Your task to perform on an android device: empty trash in the gmail app Image 0: 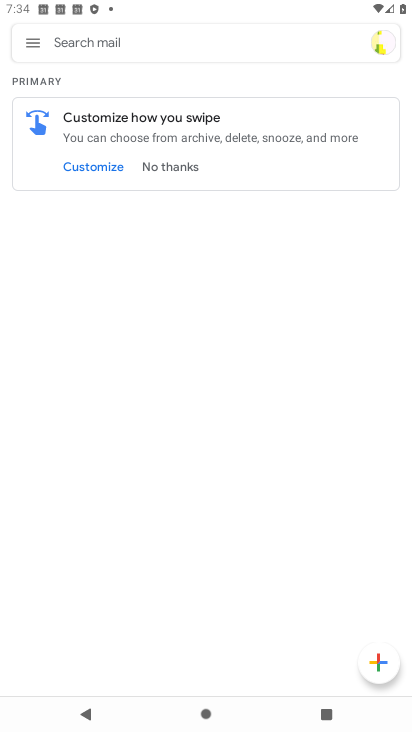
Step 0: press home button
Your task to perform on an android device: empty trash in the gmail app Image 1: 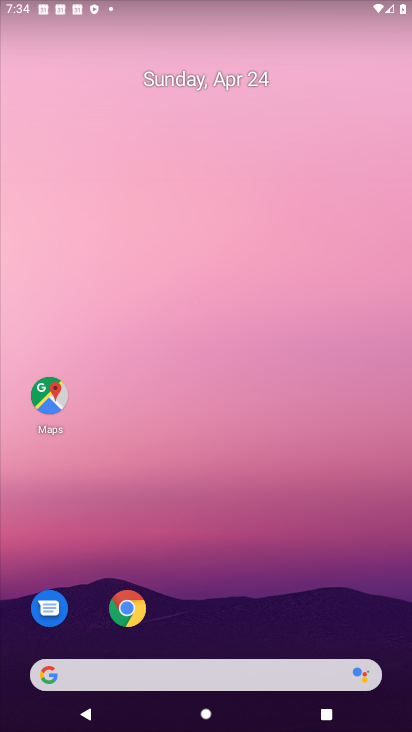
Step 1: drag from (264, 603) to (352, 86)
Your task to perform on an android device: empty trash in the gmail app Image 2: 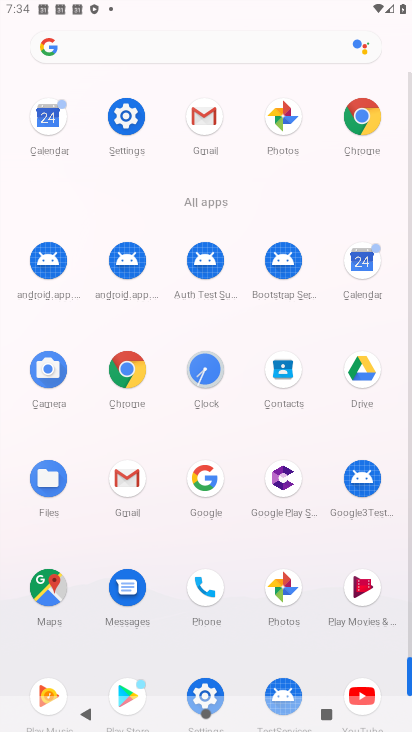
Step 2: click (205, 118)
Your task to perform on an android device: empty trash in the gmail app Image 3: 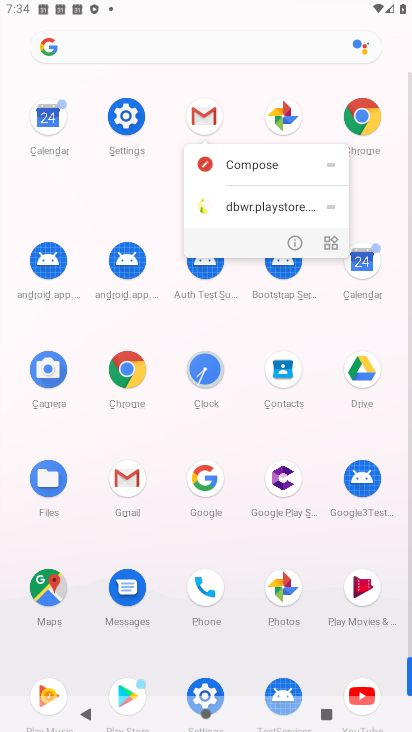
Step 3: click (206, 121)
Your task to perform on an android device: empty trash in the gmail app Image 4: 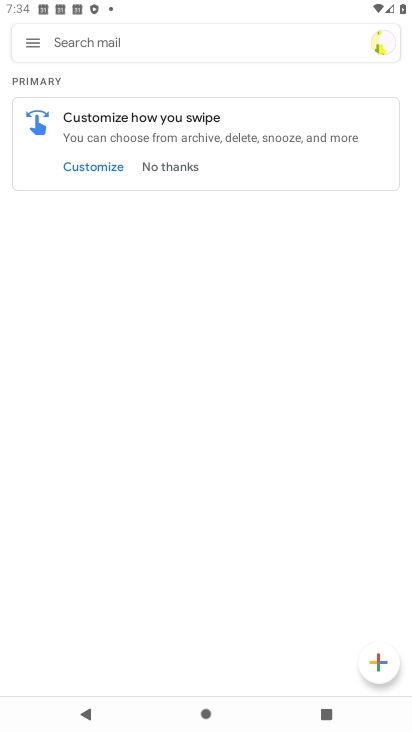
Step 4: click (29, 35)
Your task to perform on an android device: empty trash in the gmail app Image 5: 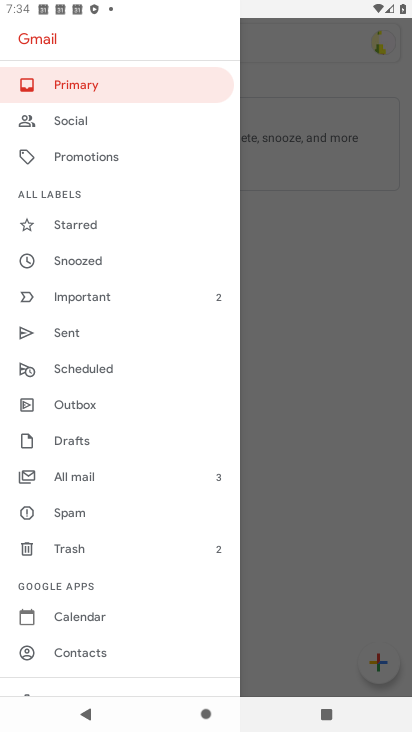
Step 5: click (114, 546)
Your task to perform on an android device: empty trash in the gmail app Image 6: 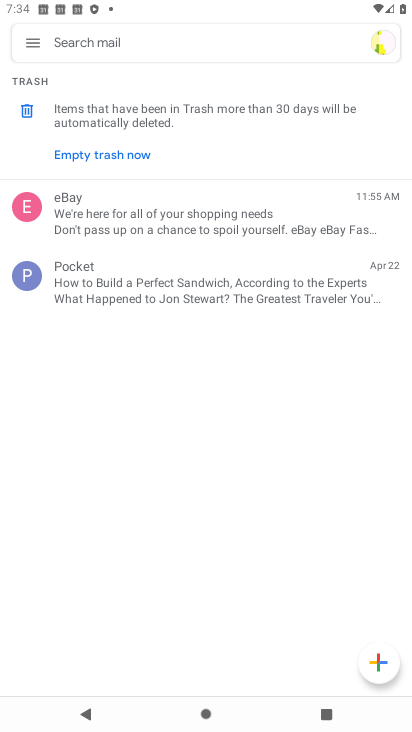
Step 6: click (113, 148)
Your task to perform on an android device: empty trash in the gmail app Image 7: 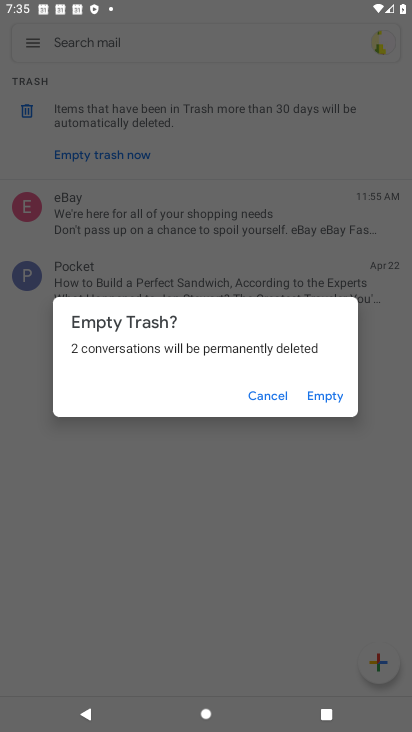
Step 7: click (332, 395)
Your task to perform on an android device: empty trash in the gmail app Image 8: 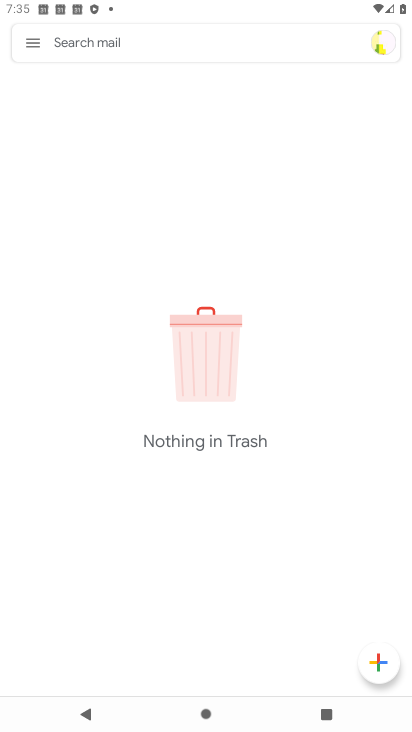
Step 8: task complete